Your task to perform on an android device: open device folders in google photos Image 0: 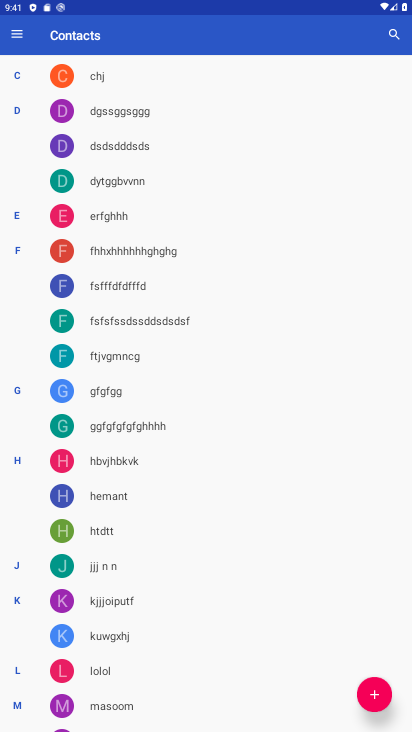
Step 0: press home button
Your task to perform on an android device: open device folders in google photos Image 1: 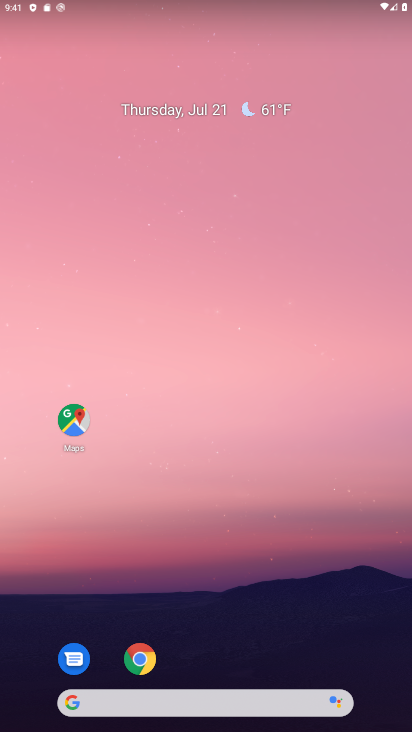
Step 1: drag from (30, 709) to (117, 314)
Your task to perform on an android device: open device folders in google photos Image 2: 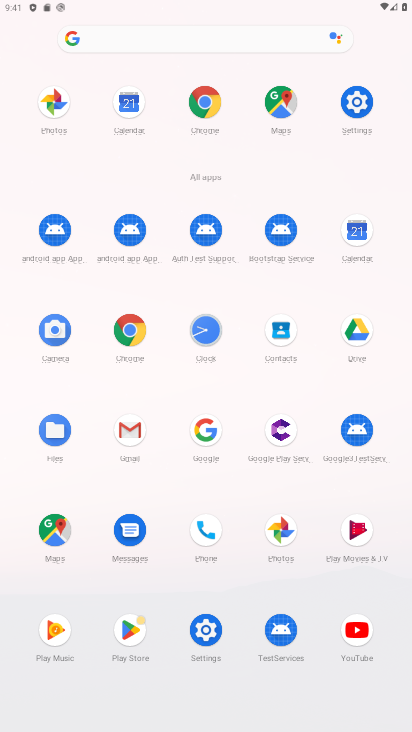
Step 2: click (277, 536)
Your task to perform on an android device: open device folders in google photos Image 3: 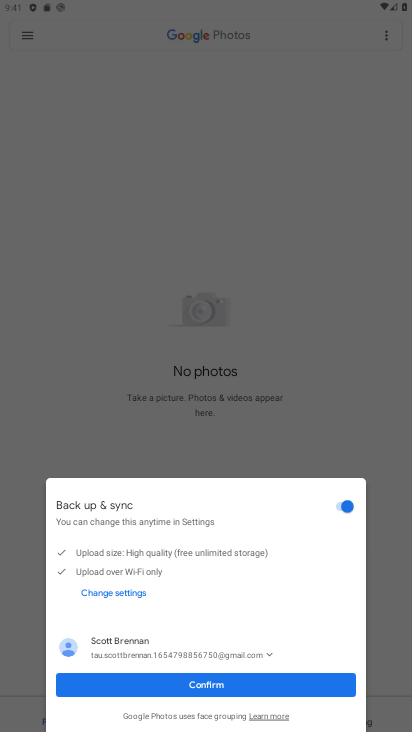
Step 3: click (142, 681)
Your task to perform on an android device: open device folders in google photos Image 4: 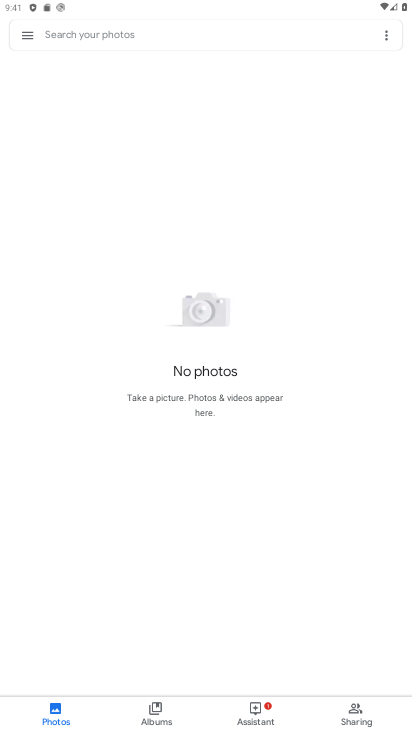
Step 4: click (24, 37)
Your task to perform on an android device: open device folders in google photos Image 5: 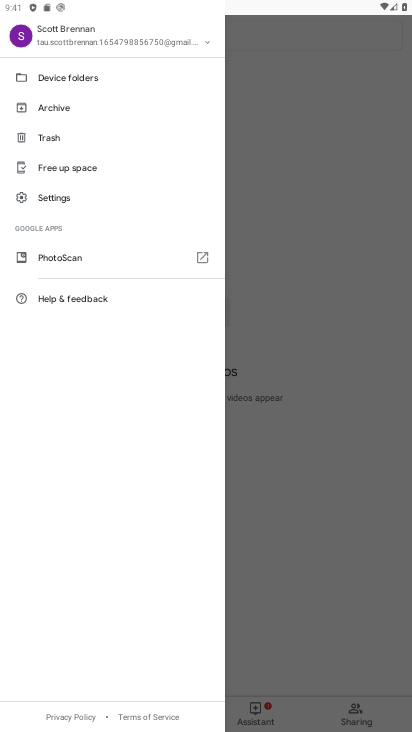
Step 5: click (63, 69)
Your task to perform on an android device: open device folders in google photos Image 6: 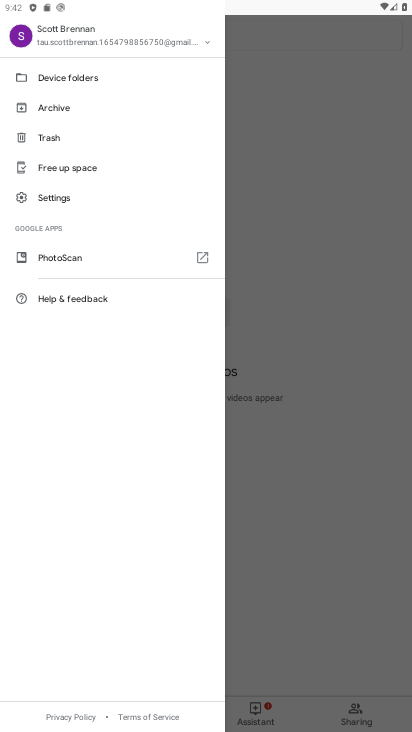
Step 6: click (52, 75)
Your task to perform on an android device: open device folders in google photos Image 7: 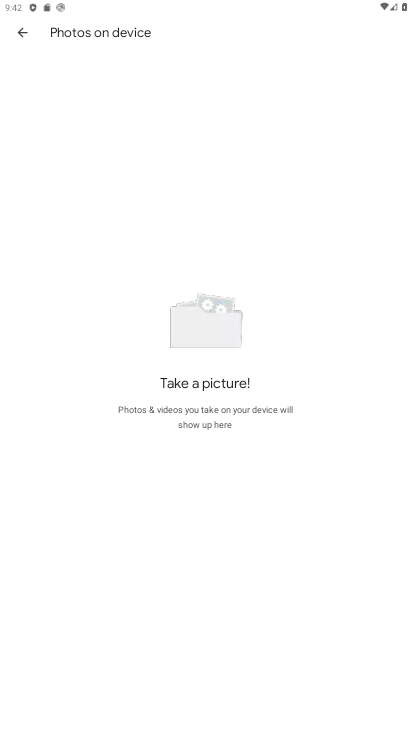
Step 7: task complete